Your task to perform on an android device: turn off notifications in google photos Image 0: 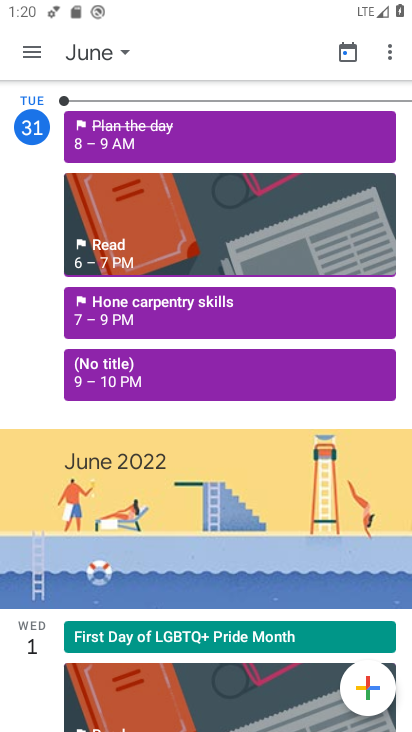
Step 0: press home button
Your task to perform on an android device: turn off notifications in google photos Image 1: 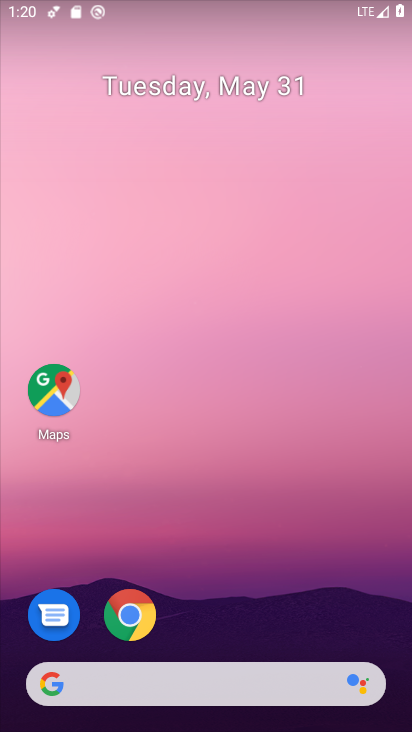
Step 1: drag from (273, 12) to (120, 38)
Your task to perform on an android device: turn off notifications in google photos Image 2: 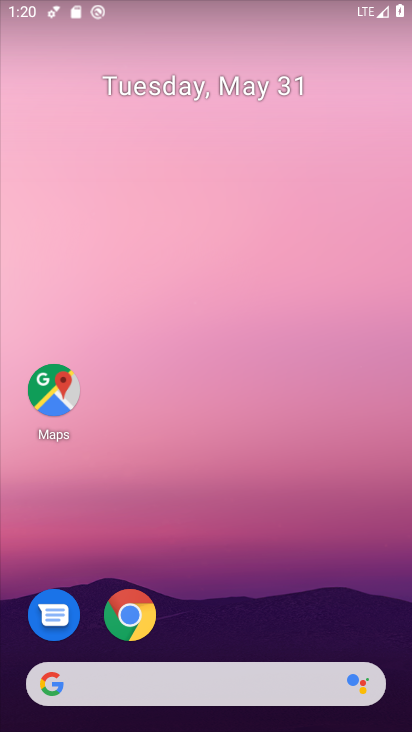
Step 2: drag from (229, 587) to (285, 15)
Your task to perform on an android device: turn off notifications in google photos Image 3: 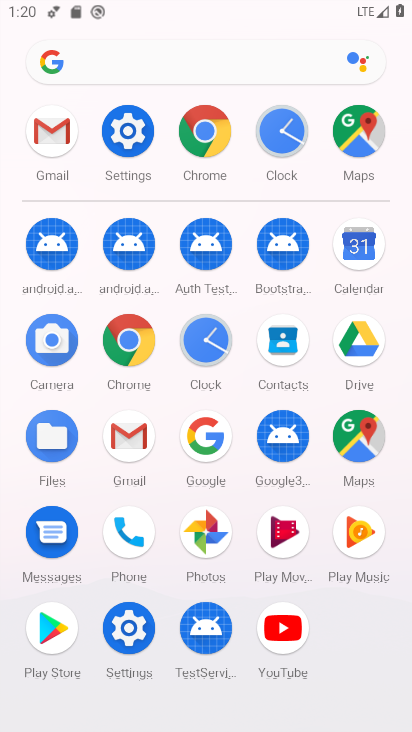
Step 3: click (210, 546)
Your task to perform on an android device: turn off notifications in google photos Image 4: 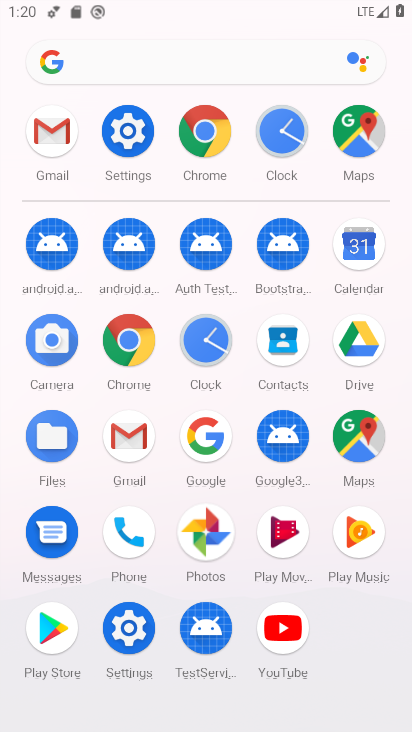
Step 4: click (210, 546)
Your task to perform on an android device: turn off notifications in google photos Image 5: 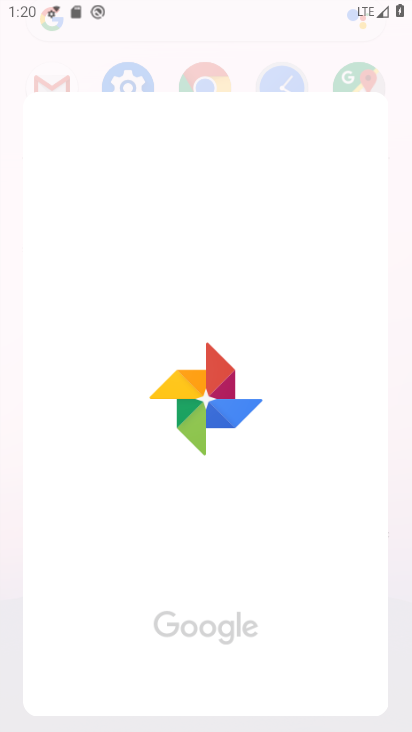
Step 5: click (211, 550)
Your task to perform on an android device: turn off notifications in google photos Image 6: 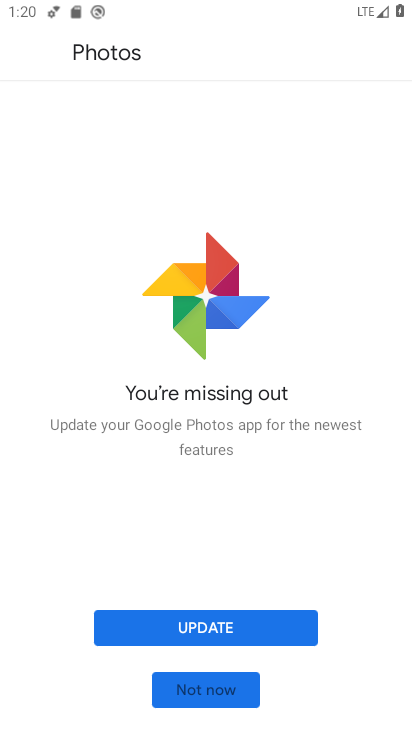
Step 6: click (349, 412)
Your task to perform on an android device: turn off notifications in google photos Image 7: 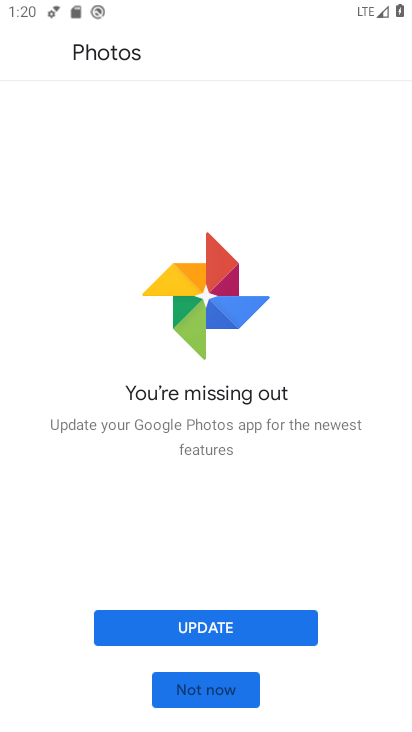
Step 7: click (226, 690)
Your task to perform on an android device: turn off notifications in google photos Image 8: 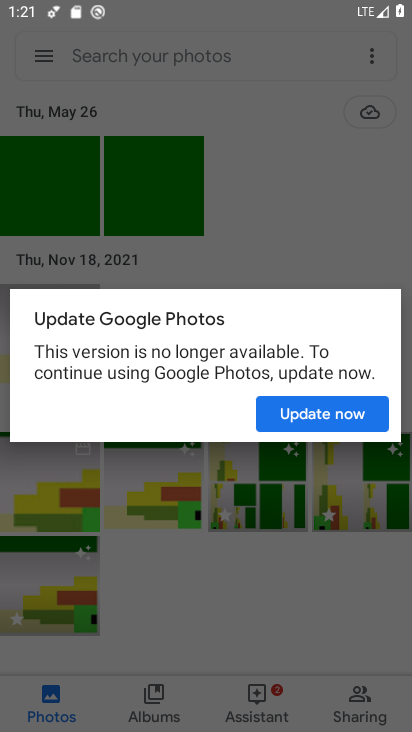
Step 8: click (330, 411)
Your task to perform on an android device: turn off notifications in google photos Image 9: 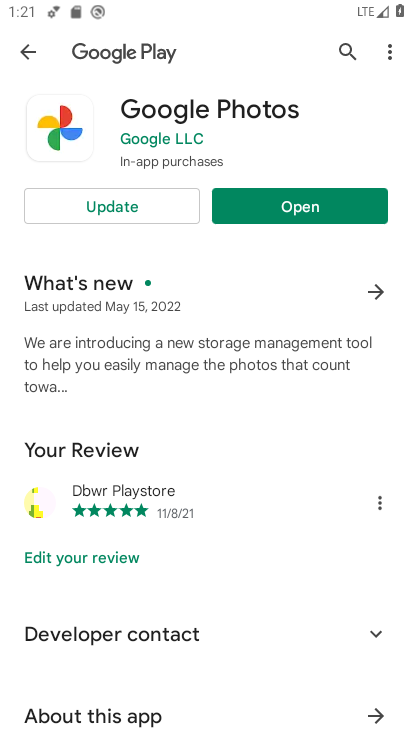
Step 9: click (318, 193)
Your task to perform on an android device: turn off notifications in google photos Image 10: 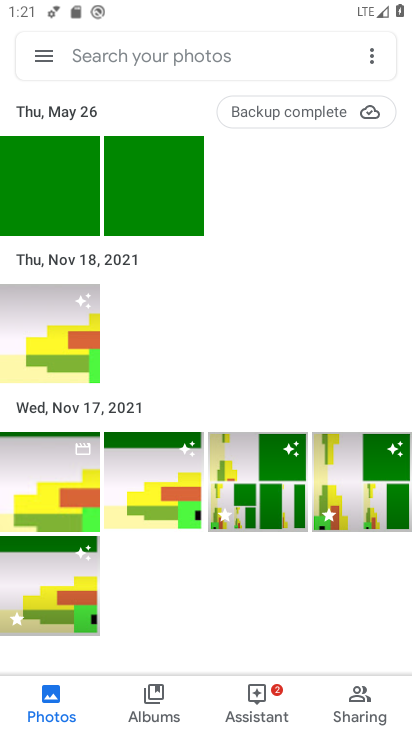
Step 10: click (41, 61)
Your task to perform on an android device: turn off notifications in google photos Image 11: 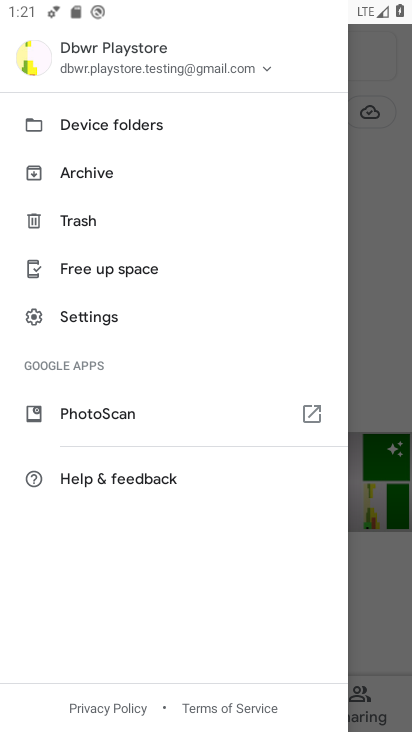
Step 11: click (98, 318)
Your task to perform on an android device: turn off notifications in google photos Image 12: 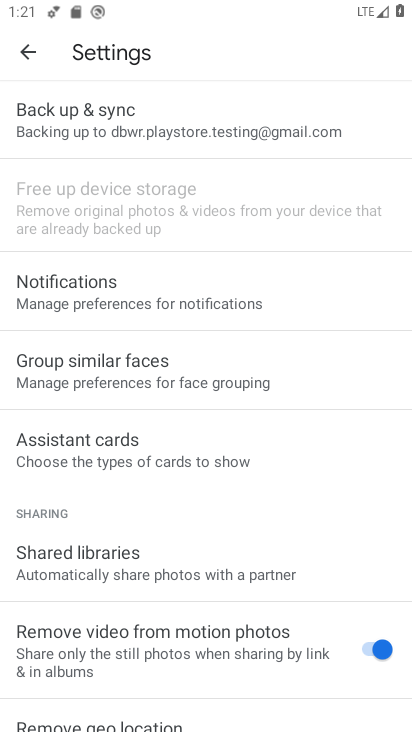
Step 12: click (140, 302)
Your task to perform on an android device: turn off notifications in google photos Image 13: 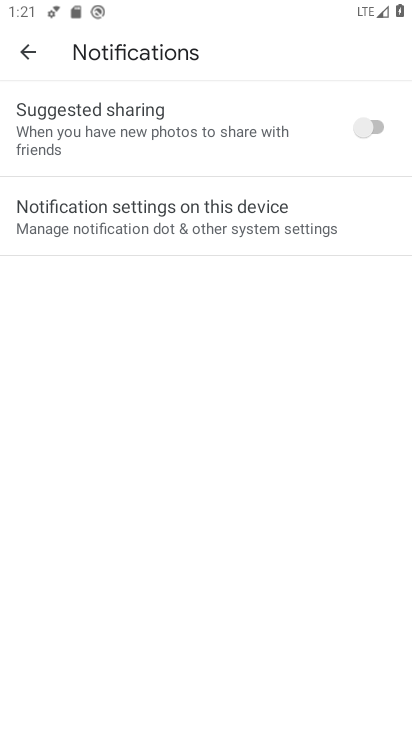
Step 13: click (187, 201)
Your task to perform on an android device: turn off notifications in google photos Image 14: 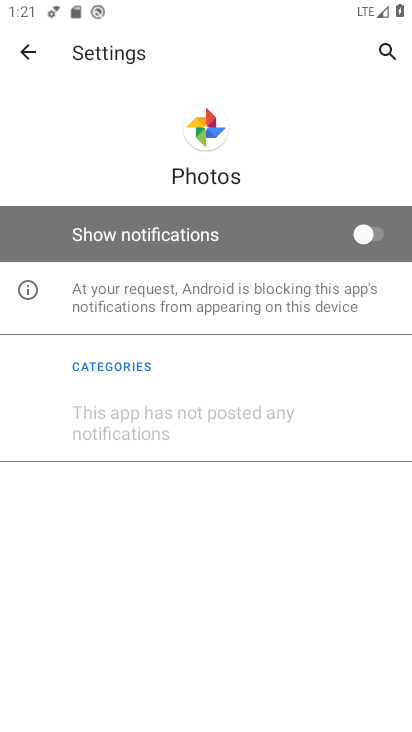
Step 14: task complete